Your task to perform on an android device: Empty the shopping cart on newegg.com. Search for "usb-c" on newegg.com, select the first entry, add it to the cart, then select checkout. Image 0: 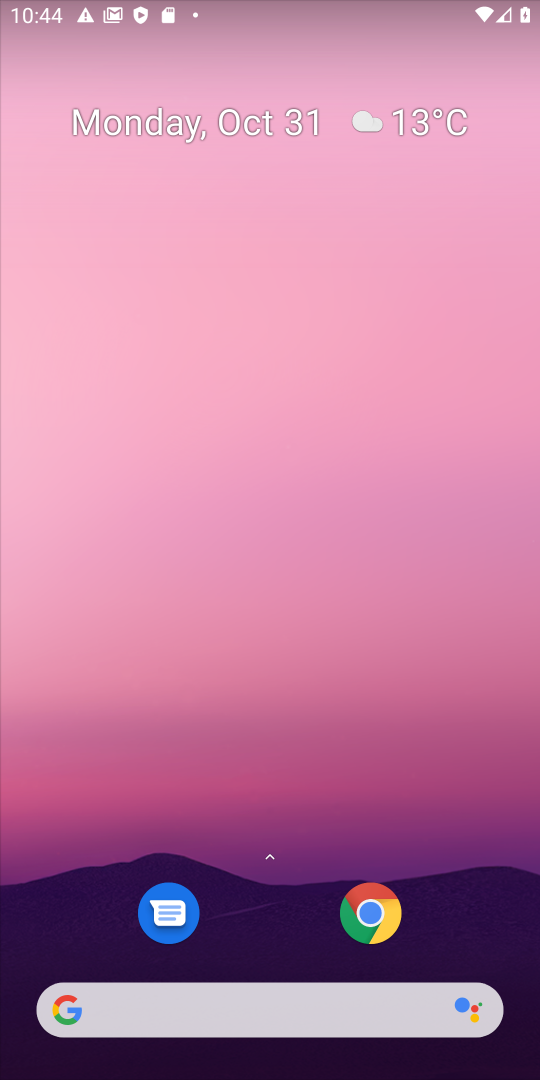
Step 0: click (212, 1020)
Your task to perform on an android device: Empty the shopping cart on newegg.com. Search for "usb-c" on newegg.com, select the first entry, add it to the cart, then select checkout. Image 1: 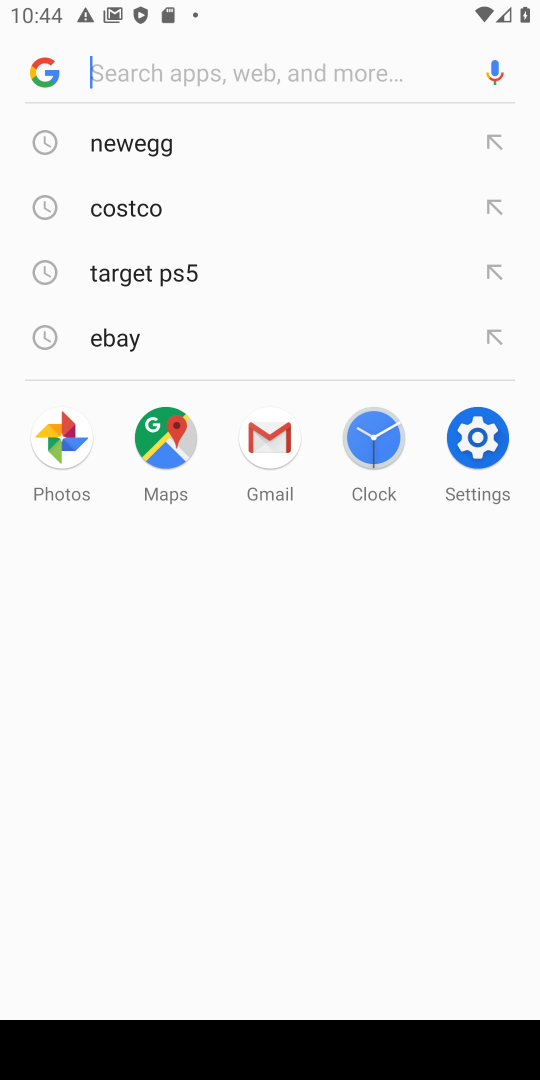
Step 1: type "newegg"
Your task to perform on an android device: Empty the shopping cart on newegg.com. Search for "usb-c" on newegg.com, select the first entry, add it to the cart, then select checkout. Image 2: 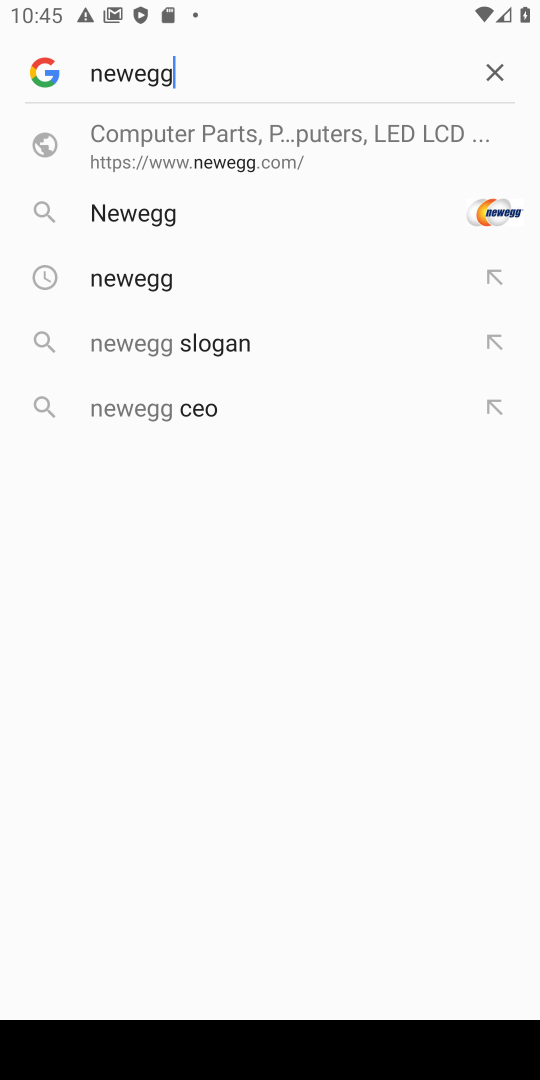
Step 2: click (324, 193)
Your task to perform on an android device: Empty the shopping cart on newegg.com. Search for "usb-c" on newegg.com, select the first entry, add it to the cart, then select checkout. Image 3: 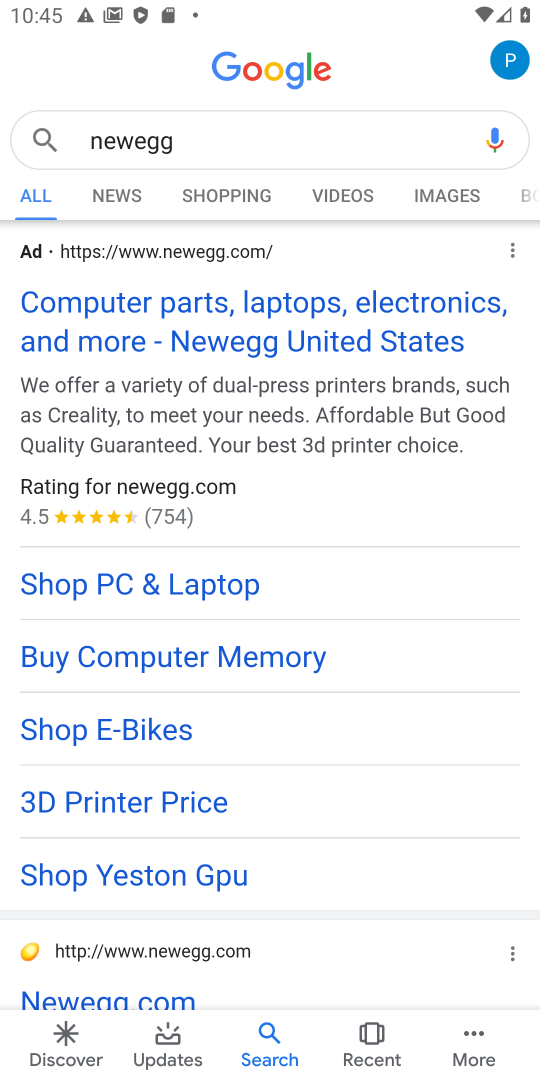
Step 3: click (348, 306)
Your task to perform on an android device: Empty the shopping cart on newegg.com. Search for "usb-c" on newegg.com, select the first entry, add it to the cart, then select checkout. Image 4: 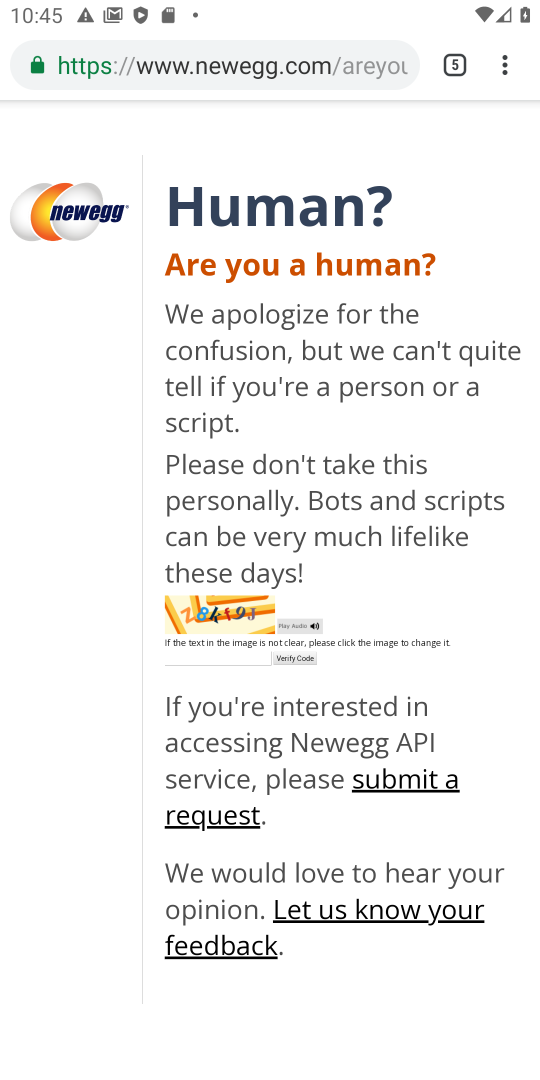
Step 4: click (238, 660)
Your task to perform on an android device: Empty the shopping cart on newegg.com. Search for "usb-c" on newegg.com, select the first entry, add it to the cart, then select checkout. Image 5: 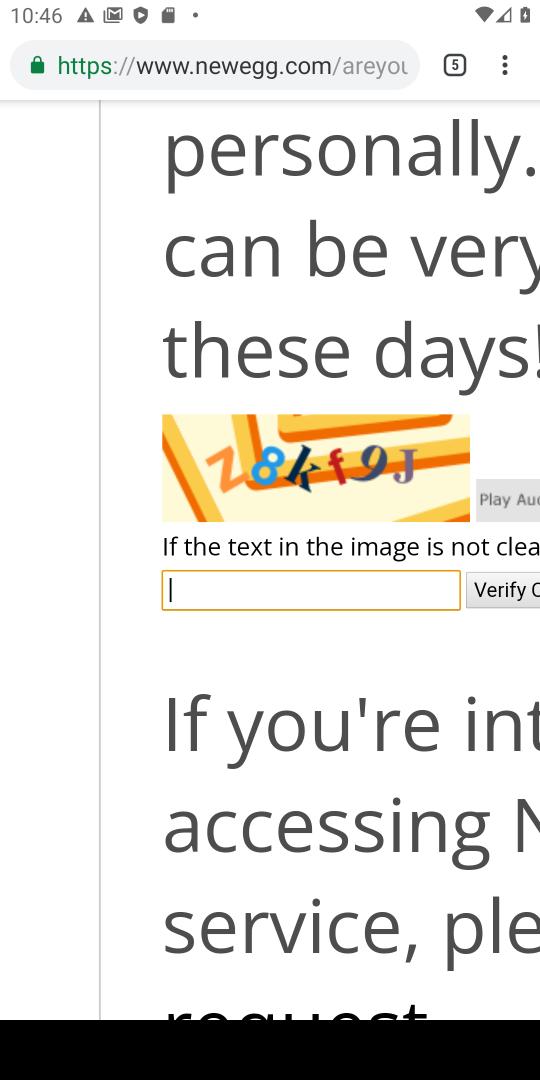
Step 5: type "Z8kf9J"
Your task to perform on an android device: Empty the shopping cart on newegg.com. Search for "usb-c" on newegg.com, select the first entry, add it to the cart, then select checkout. Image 6: 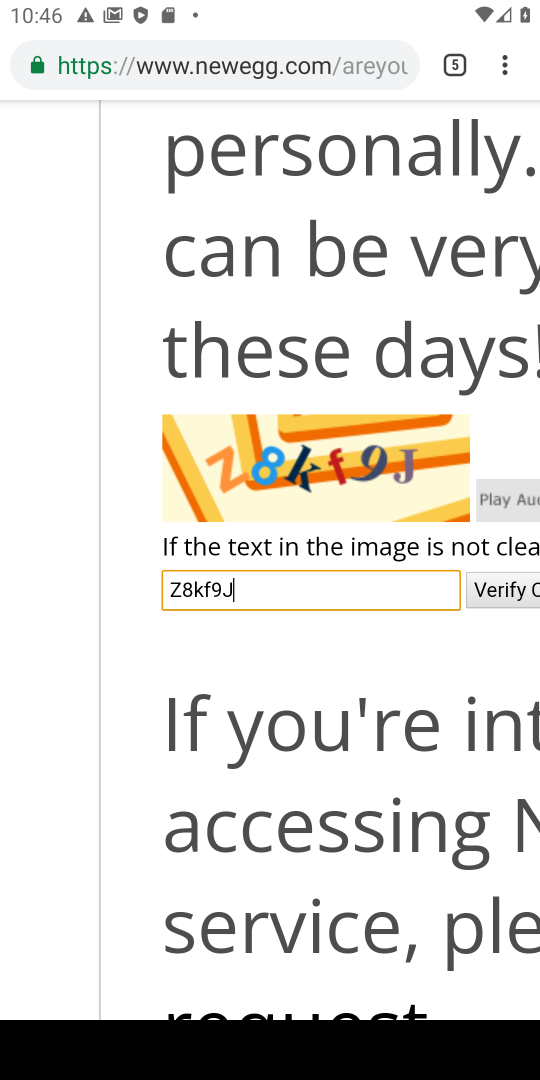
Step 6: click (488, 587)
Your task to perform on an android device: Empty the shopping cart on newegg.com. Search for "usb-c" on newegg.com, select the first entry, add it to the cart, then select checkout. Image 7: 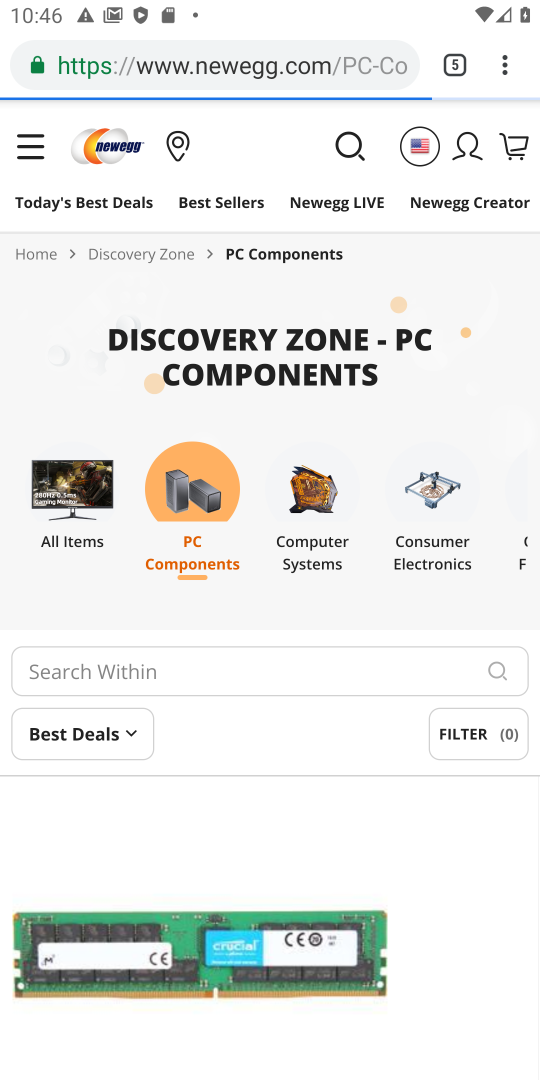
Step 7: click (254, 660)
Your task to perform on an android device: Empty the shopping cart on newegg.com. Search for "usb-c" on newegg.com, select the first entry, add it to the cart, then select checkout. Image 8: 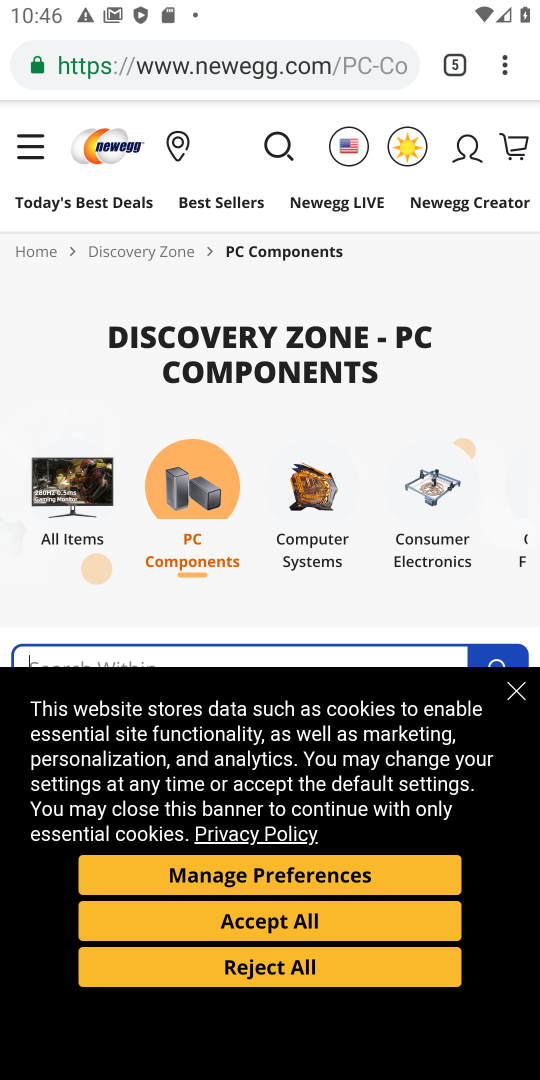
Step 8: type "usb -c"
Your task to perform on an android device: Empty the shopping cart on newegg.com. Search for "usb-c" on newegg.com, select the first entry, add it to the cart, then select checkout. Image 9: 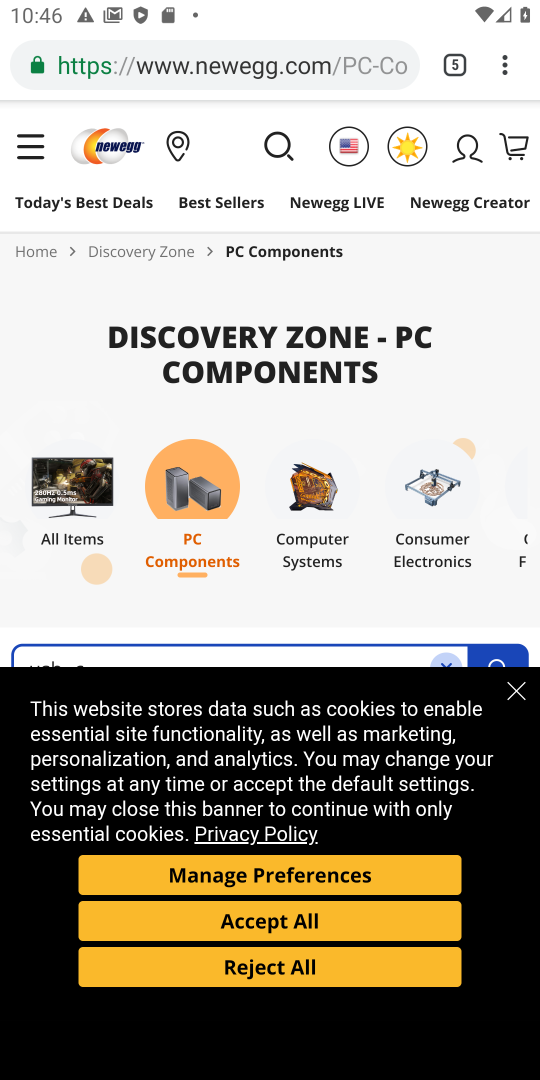
Step 9: click (524, 699)
Your task to perform on an android device: Empty the shopping cart on newegg.com. Search for "usb-c" on newegg.com, select the first entry, add it to the cart, then select checkout. Image 10: 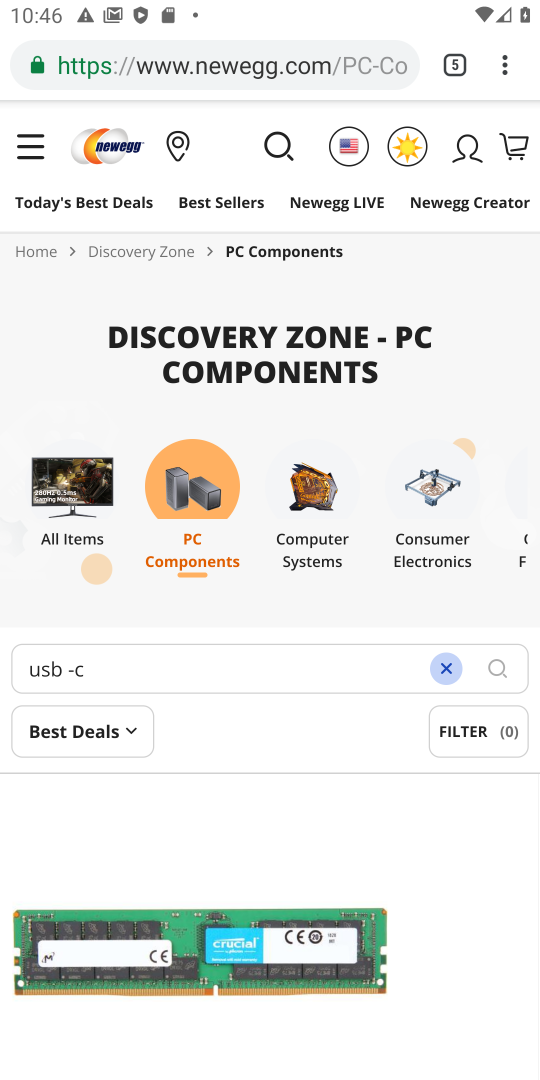
Step 10: click (488, 673)
Your task to perform on an android device: Empty the shopping cart on newegg.com. Search for "usb-c" on newegg.com, select the first entry, add it to the cart, then select checkout. Image 11: 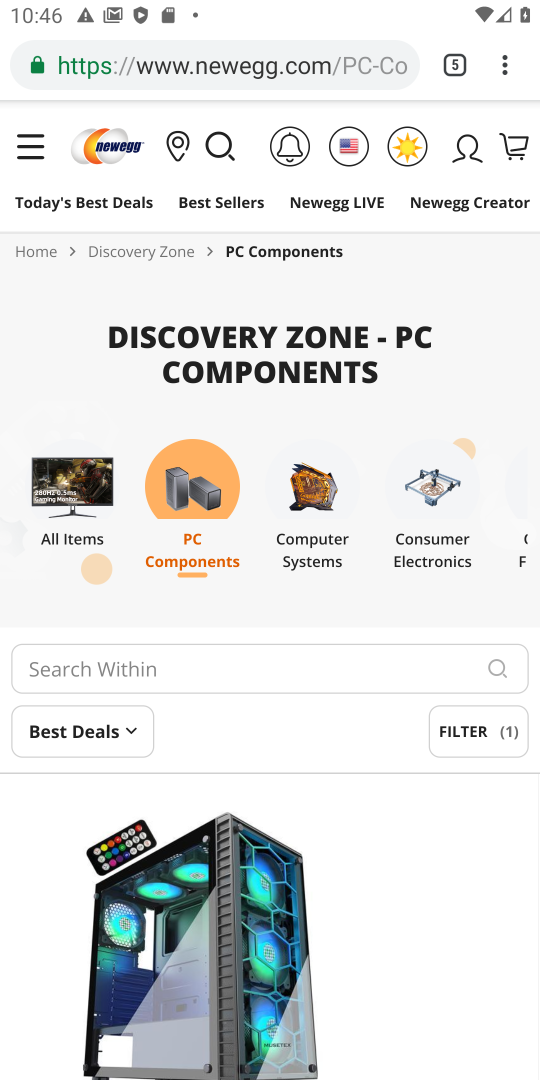
Step 11: task complete